Your task to perform on an android device: turn on notifications settings in the gmail app Image 0: 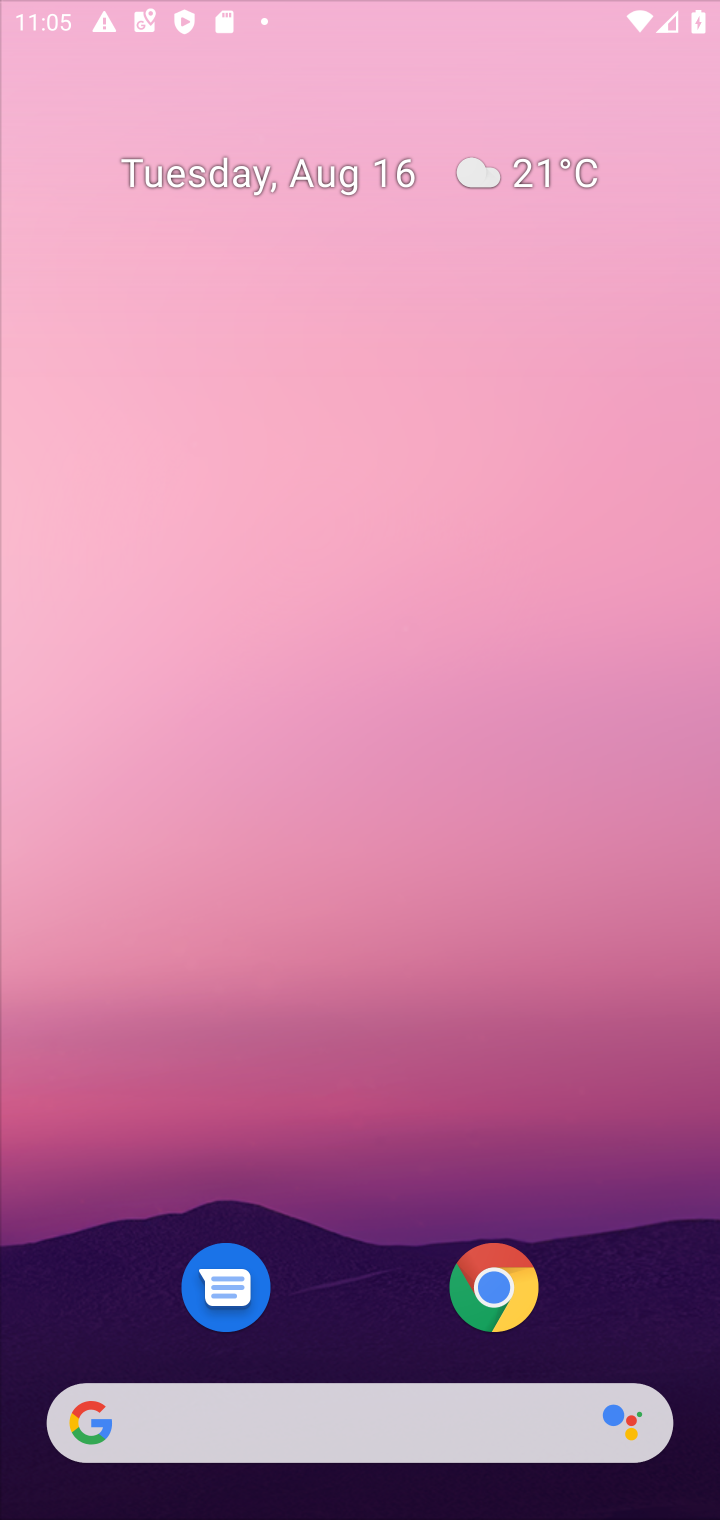
Step 0: press home button
Your task to perform on an android device: turn on notifications settings in the gmail app Image 1: 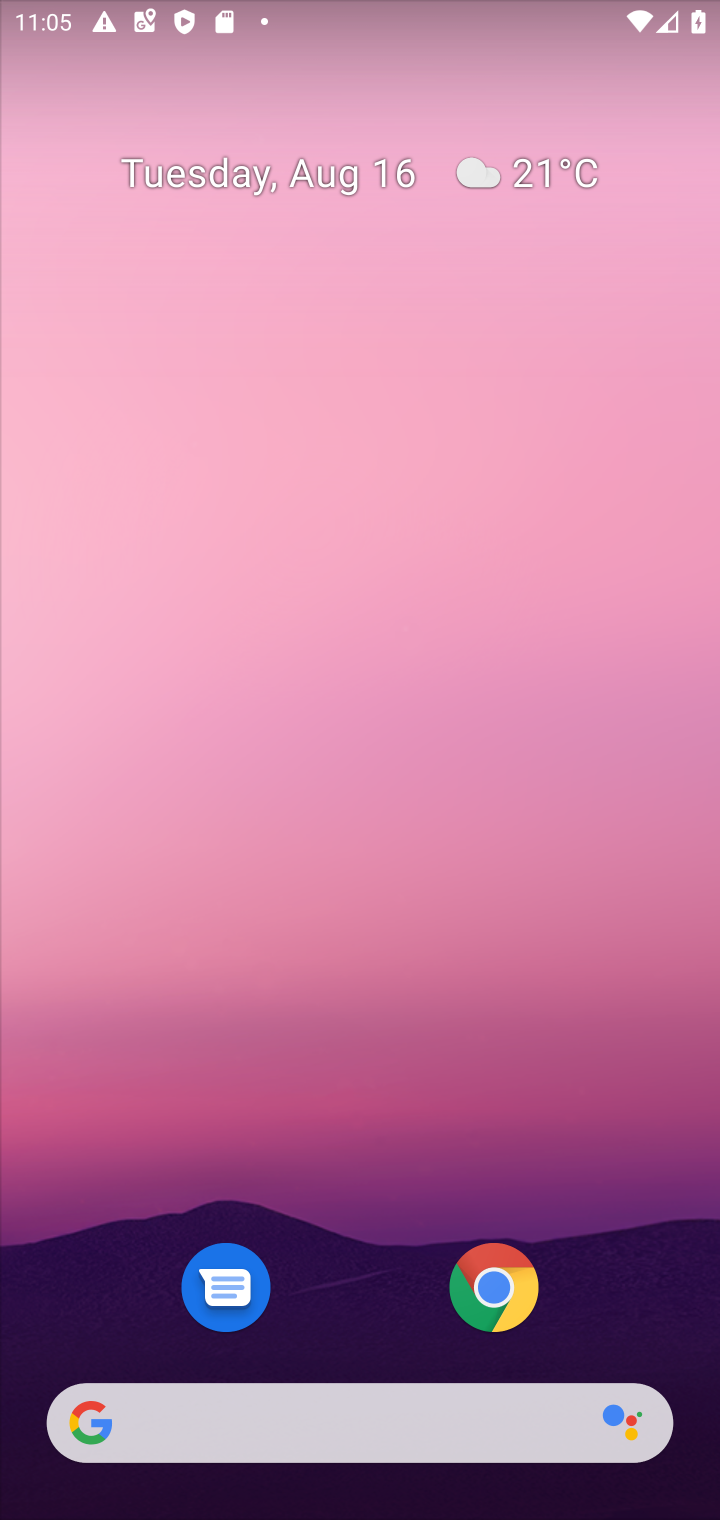
Step 1: drag from (628, 1245) to (580, 201)
Your task to perform on an android device: turn on notifications settings in the gmail app Image 2: 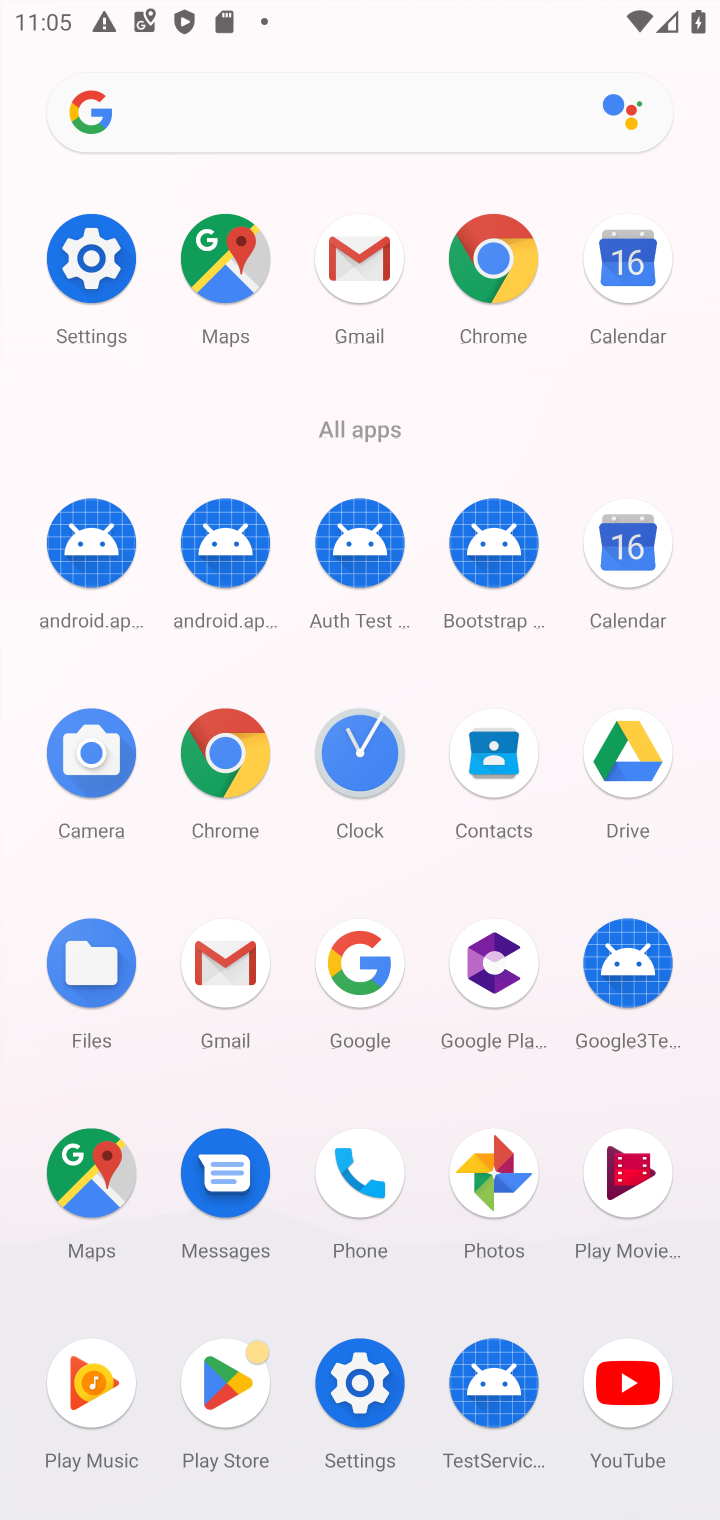
Step 2: click (220, 967)
Your task to perform on an android device: turn on notifications settings in the gmail app Image 3: 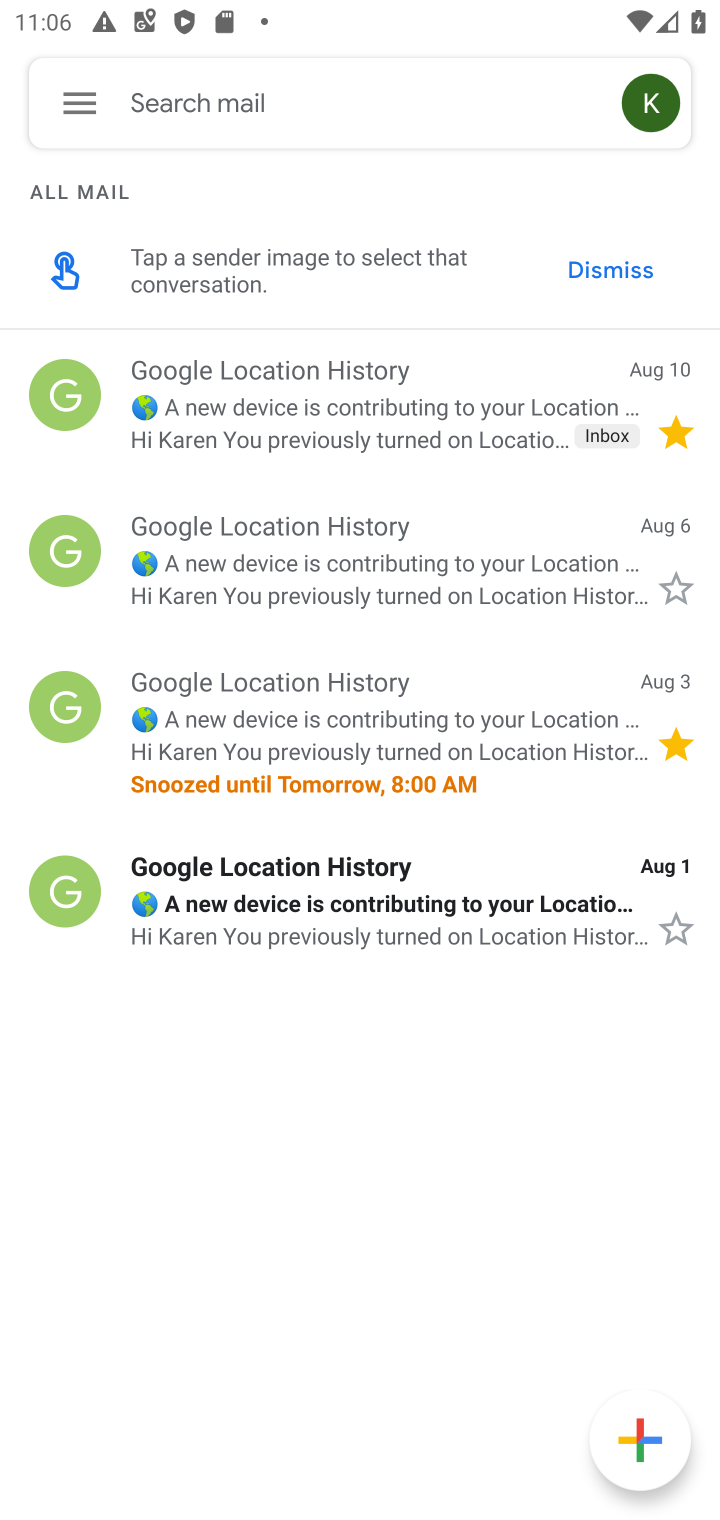
Step 3: click (89, 103)
Your task to perform on an android device: turn on notifications settings in the gmail app Image 4: 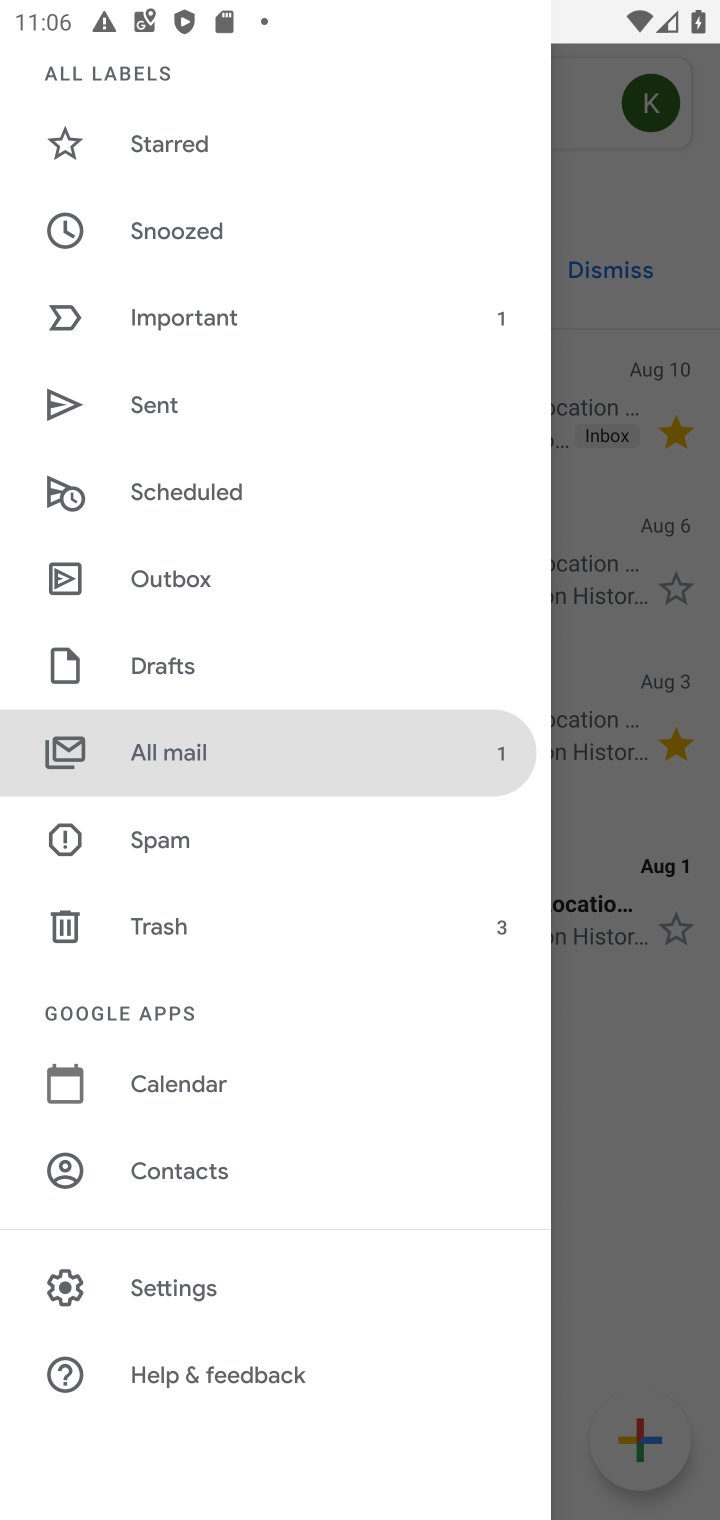
Step 4: click (167, 1297)
Your task to perform on an android device: turn on notifications settings in the gmail app Image 5: 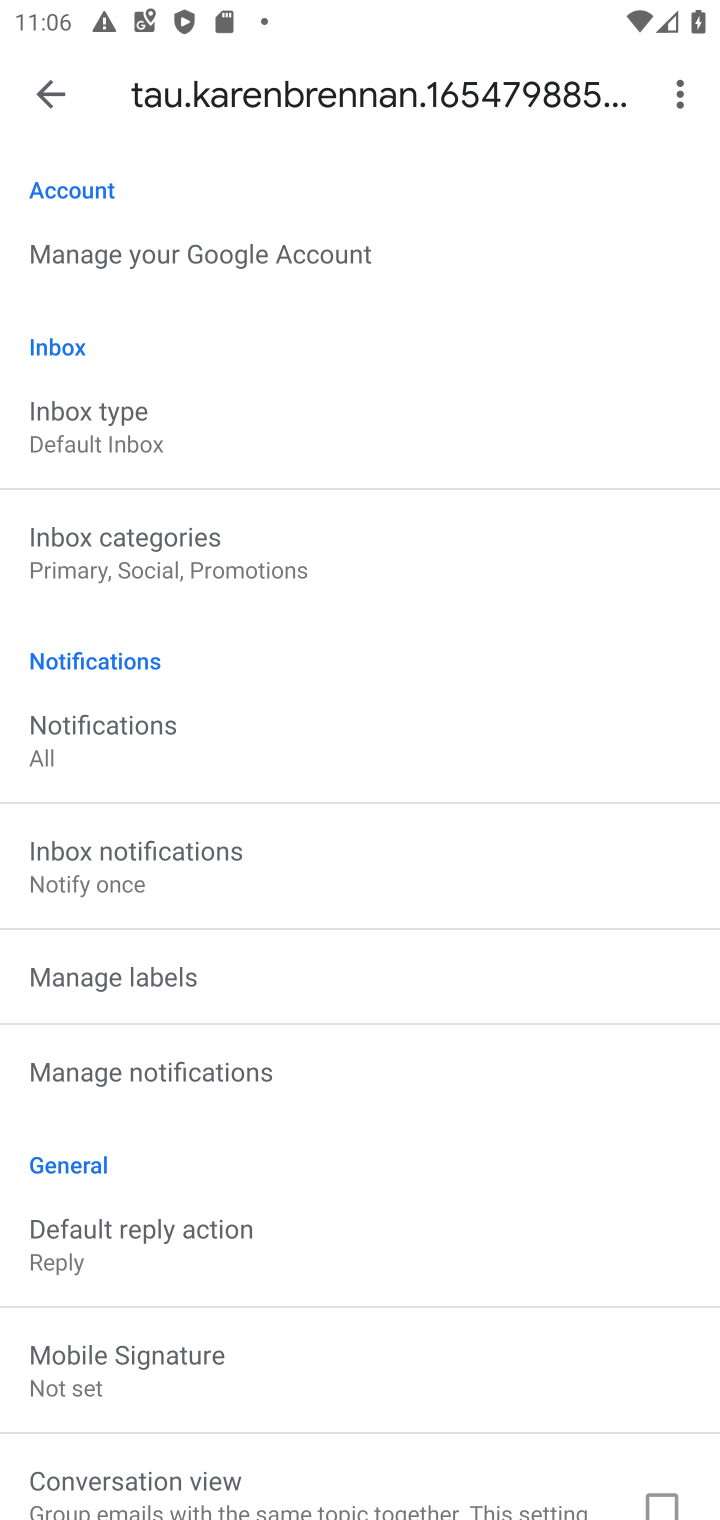
Step 5: click (175, 1073)
Your task to perform on an android device: turn on notifications settings in the gmail app Image 6: 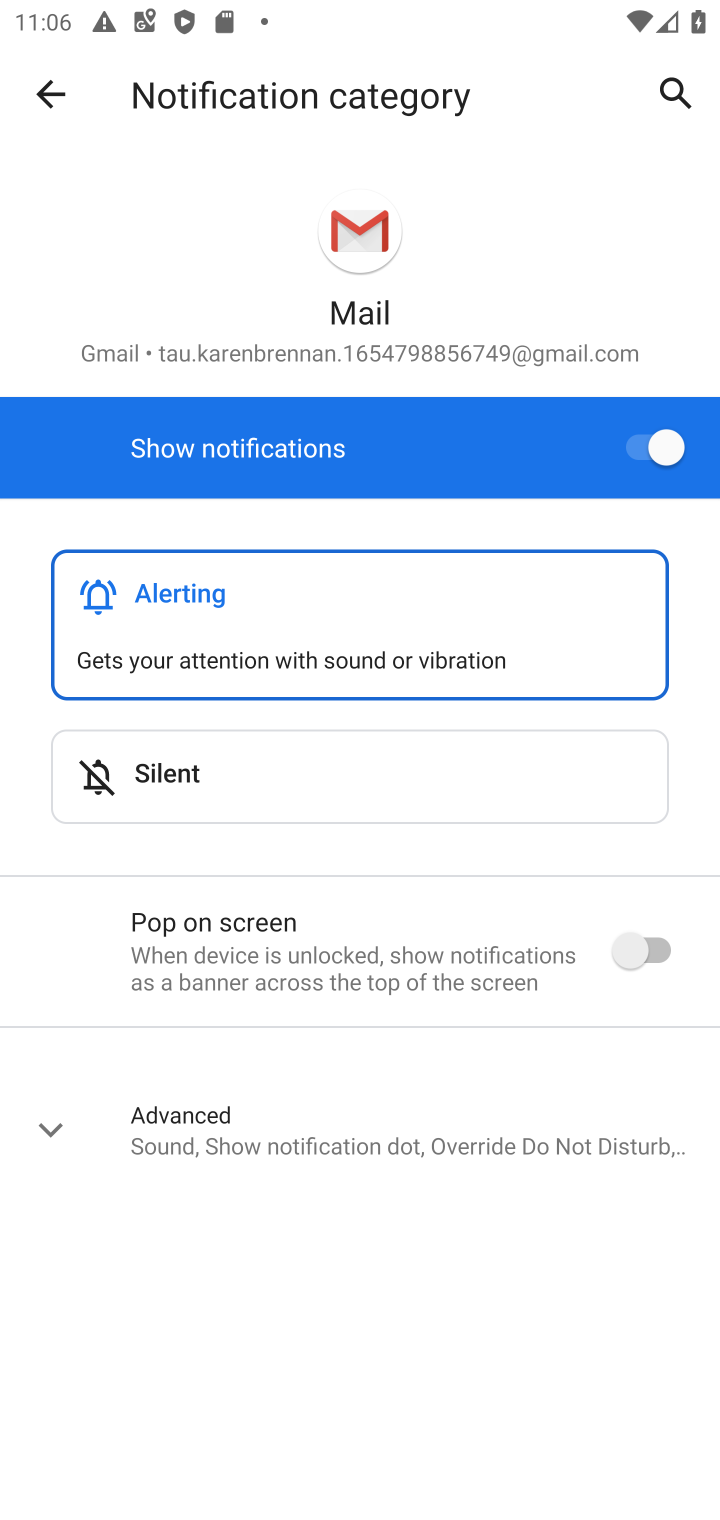
Step 6: task complete